Your task to perform on an android device: toggle show notifications on the lock screen Image 0: 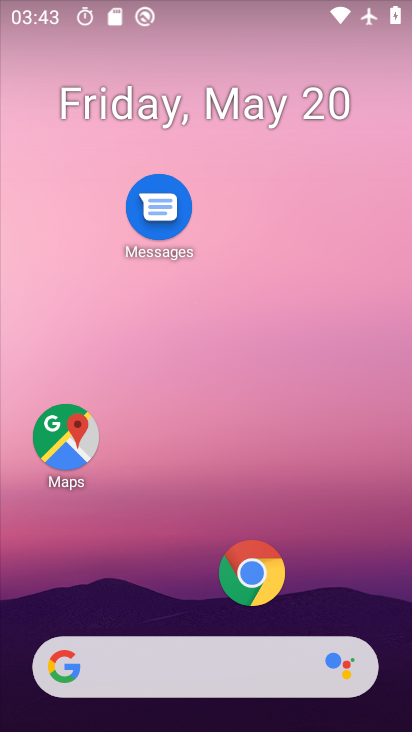
Step 0: drag from (197, 621) to (254, 220)
Your task to perform on an android device: toggle show notifications on the lock screen Image 1: 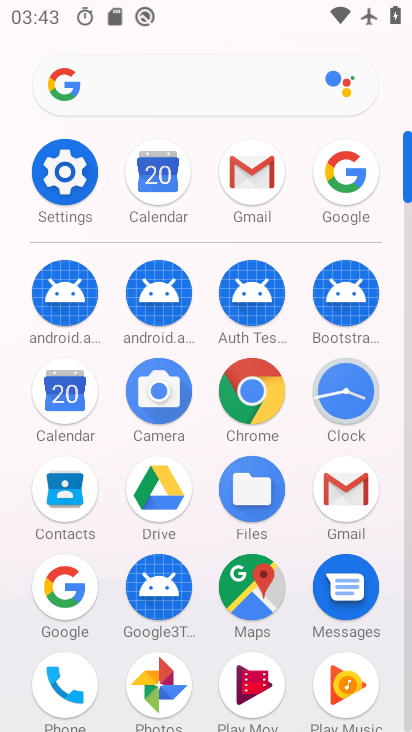
Step 1: click (78, 198)
Your task to perform on an android device: toggle show notifications on the lock screen Image 2: 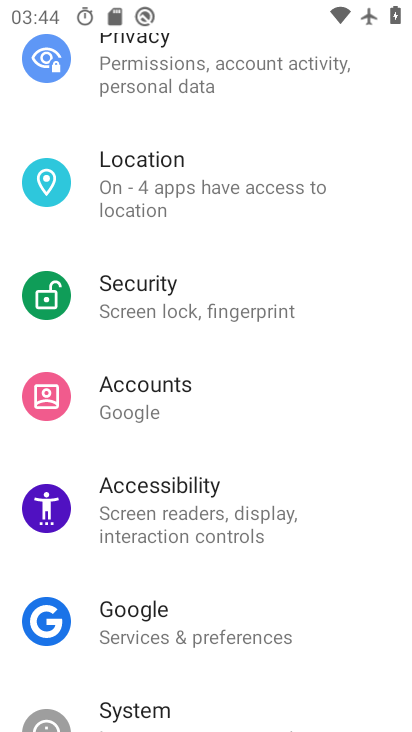
Step 2: drag from (177, 200) to (185, 602)
Your task to perform on an android device: toggle show notifications on the lock screen Image 3: 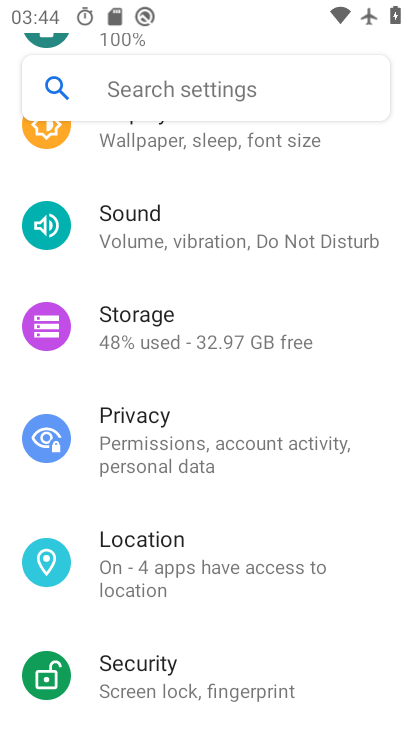
Step 3: drag from (219, 245) to (289, 609)
Your task to perform on an android device: toggle show notifications on the lock screen Image 4: 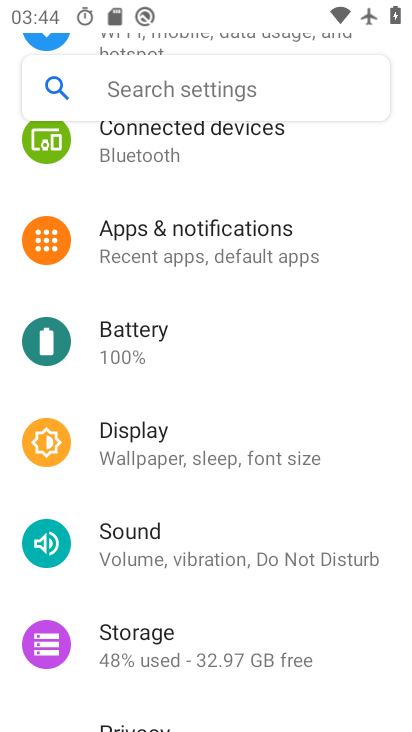
Step 4: click (233, 243)
Your task to perform on an android device: toggle show notifications on the lock screen Image 5: 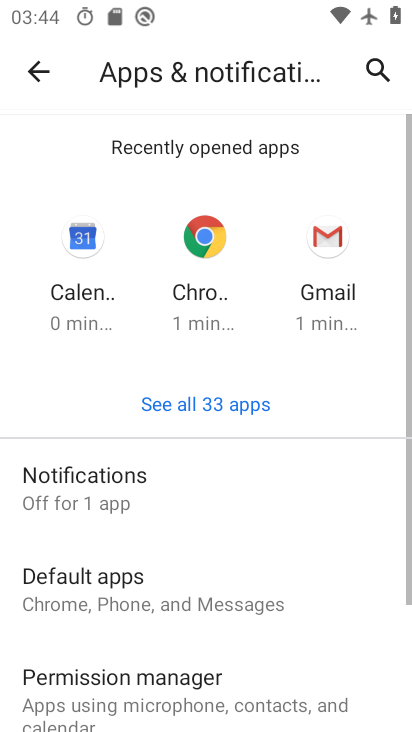
Step 5: click (187, 477)
Your task to perform on an android device: toggle show notifications on the lock screen Image 6: 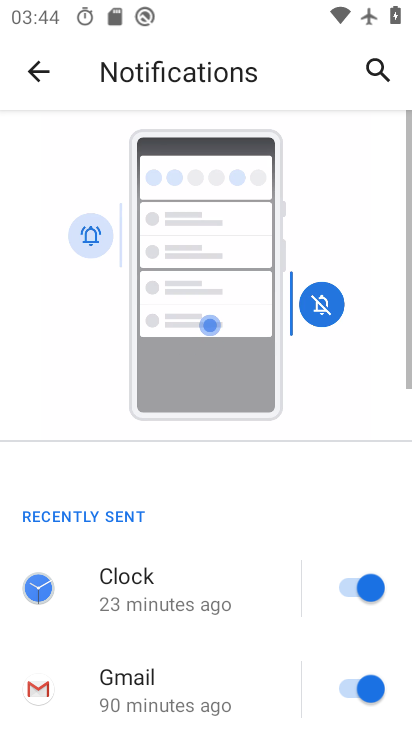
Step 6: drag from (219, 597) to (240, 189)
Your task to perform on an android device: toggle show notifications on the lock screen Image 7: 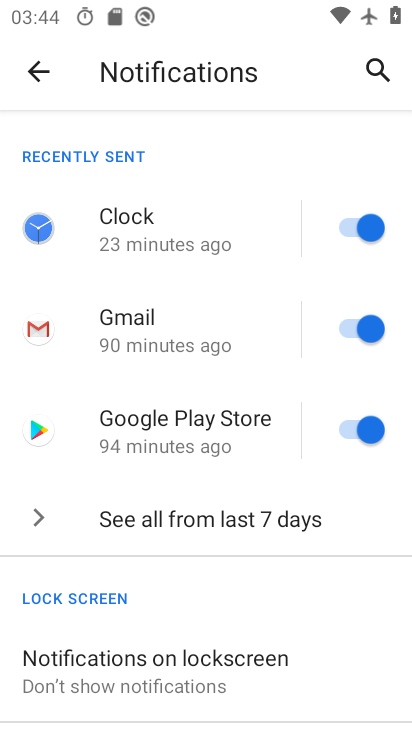
Step 7: click (205, 658)
Your task to perform on an android device: toggle show notifications on the lock screen Image 8: 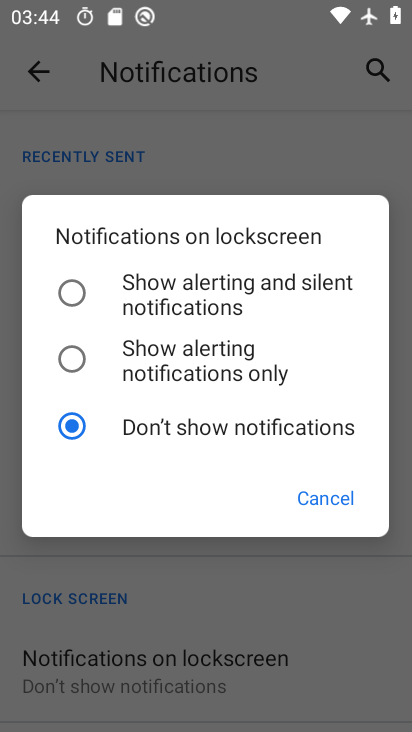
Step 8: click (190, 291)
Your task to perform on an android device: toggle show notifications on the lock screen Image 9: 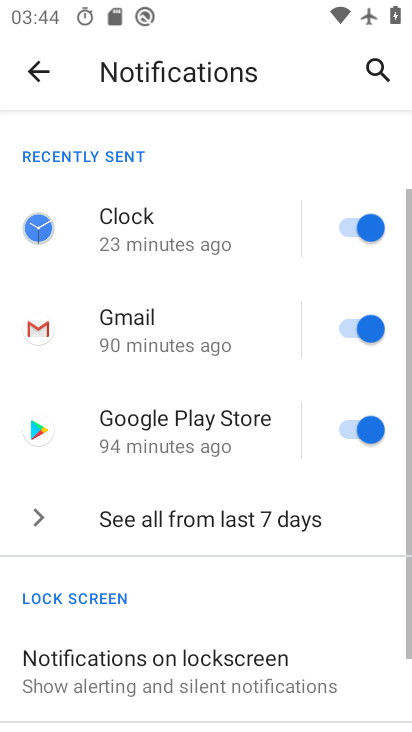
Step 9: task complete